Your task to perform on an android device: Open Android settings Image 0: 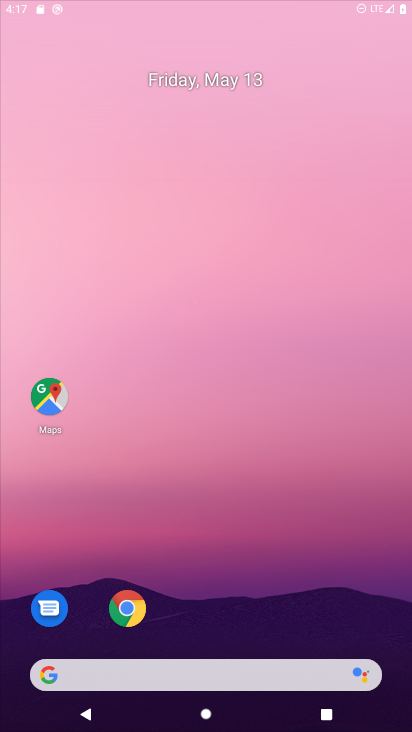
Step 0: press home button
Your task to perform on an android device: Open Android settings Image 1: 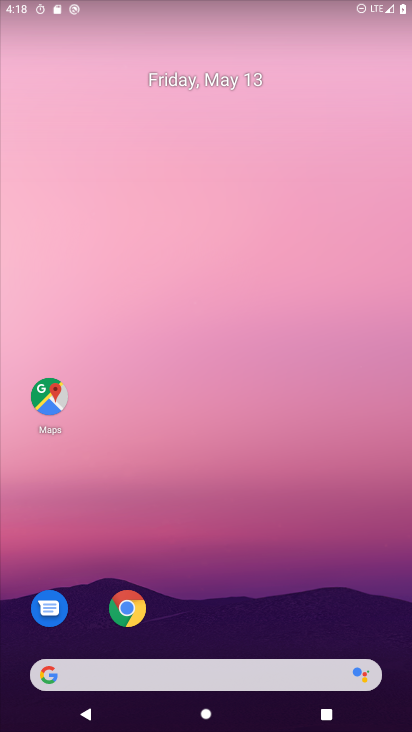
Step 1: drag from (305, 541) to (327, 124)
Your task to perform on an android device: Open Android settings Image 2: 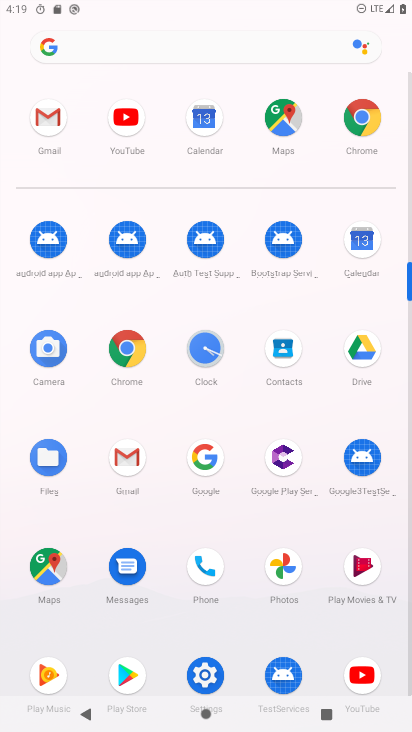
Step 2: click (207, 676)
Your task to perform on an android device: Open Android settings Image 3: 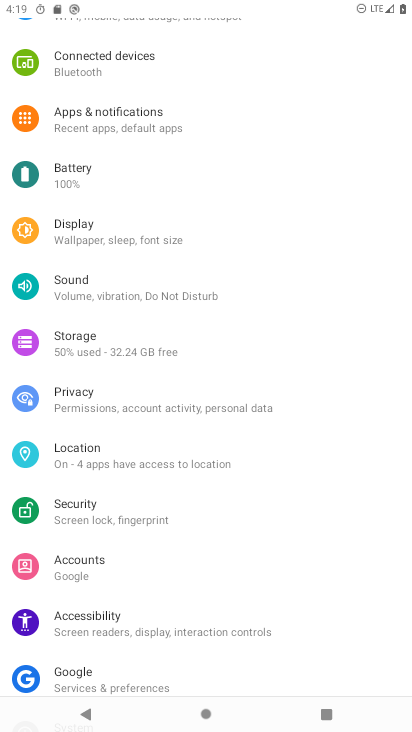
Step 3: drag from (252, 620) to (278, 153)
Your task to perform on an android device: Open Android settings Image 4: 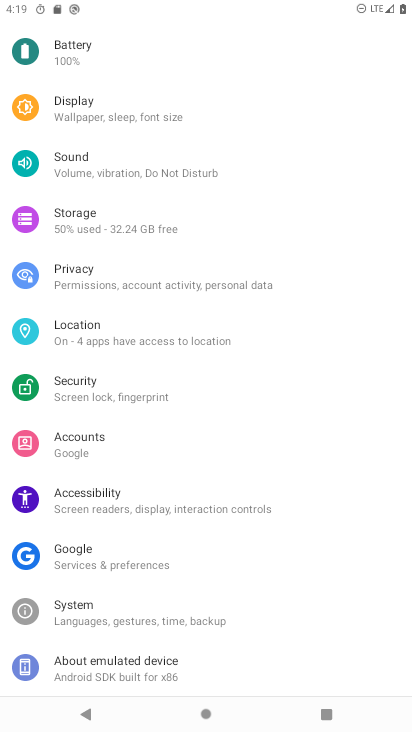
Step 4: click (96, 677)
Your task to perform on an android device: Open Android settings Image 5: 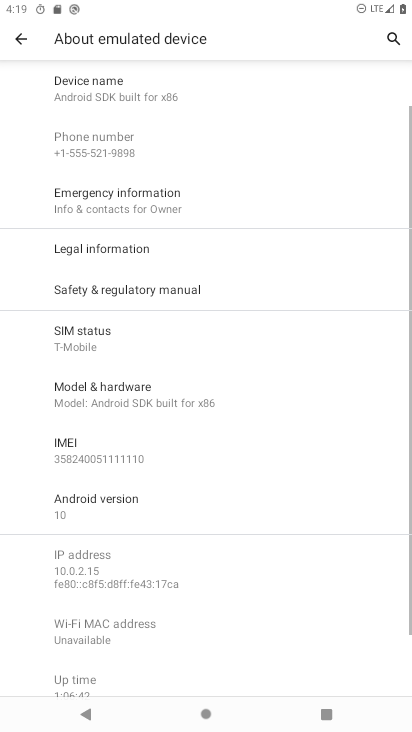
Step 5: click (76, 493)
Your task to perform on an android device: Open Android settings Image 6: 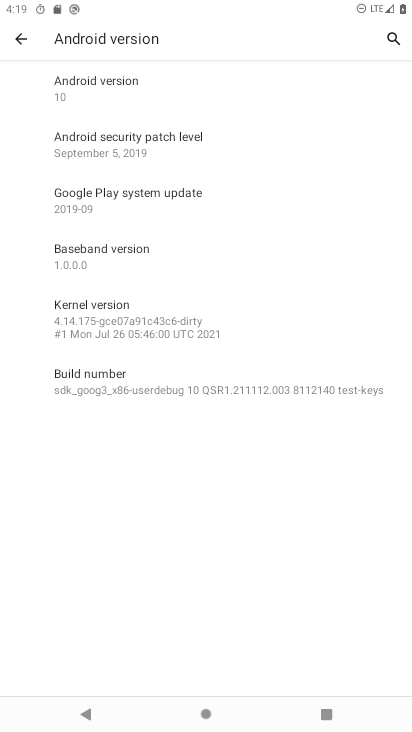
Step 6: task complete